Your task to perform on an android device: turn on location history Image 0: 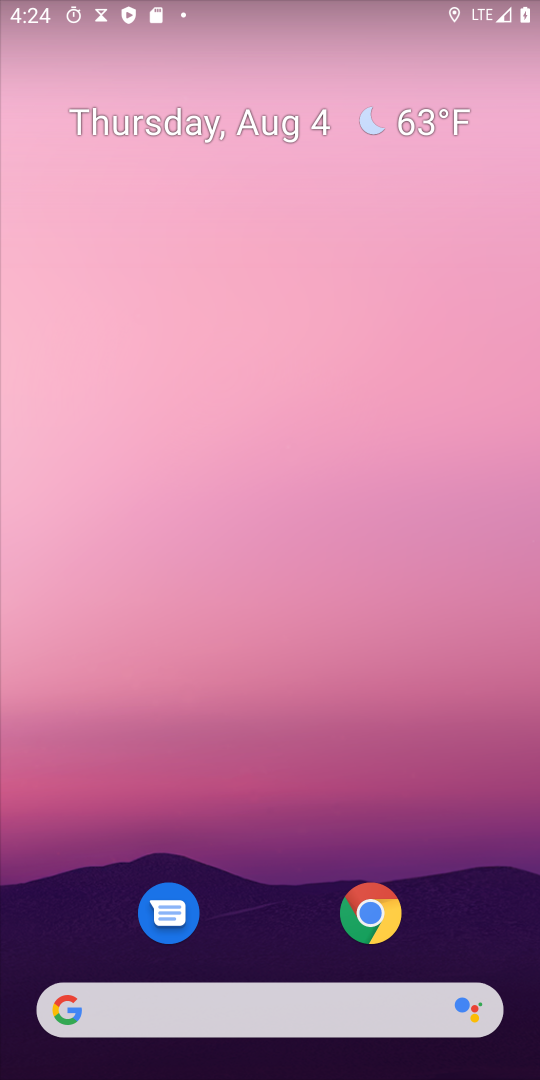
Step 0: drag from (379, 1032) to (539, 959)
Your task to perform on an android device: turn on location history Image 1: 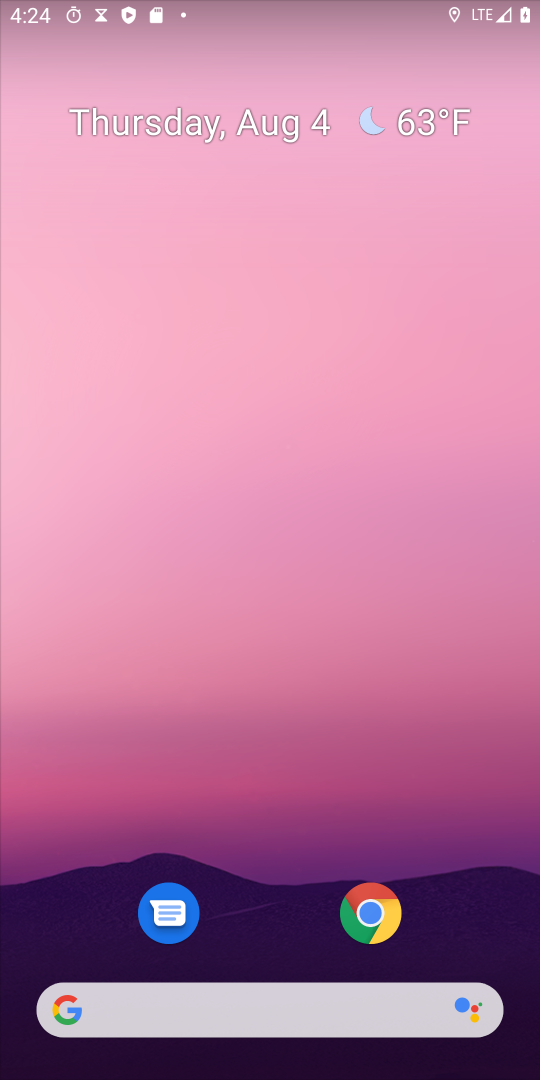
Step 1: drag from (228, 877) to (436, 72)
Your task to perform on an android device: turn on location history Image 2: 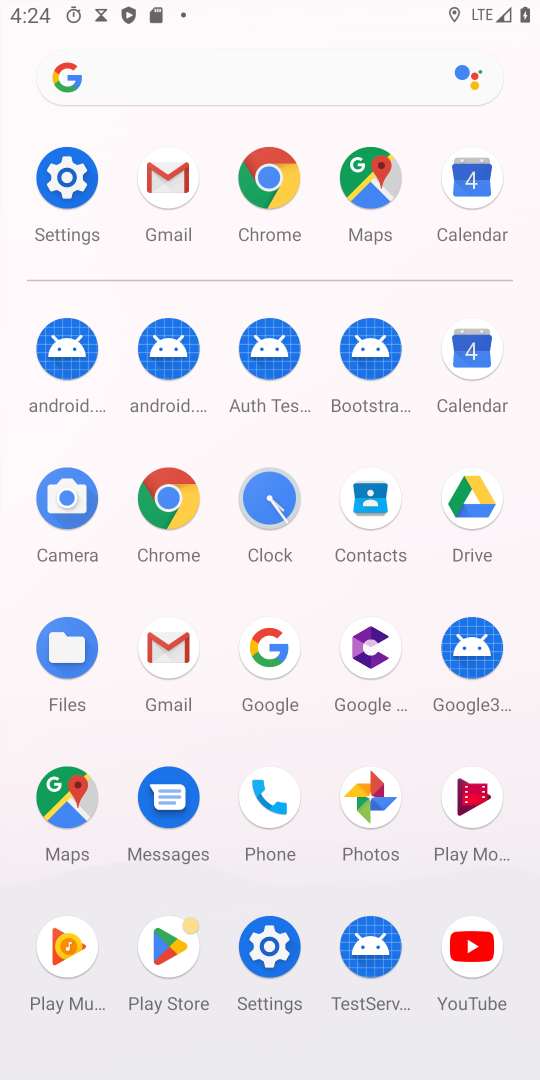
Step 2: click (65, 180)
Your task to perform on an android device: turn on location history Image 3: 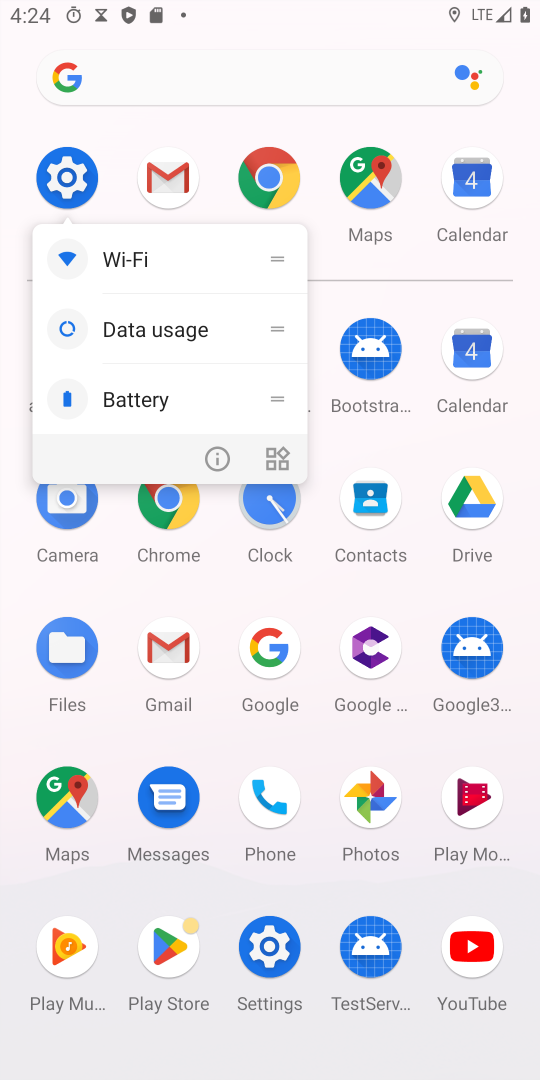
Step 3: click (70, 158)
Your task to perform on an android device: turn on location history Image 4: 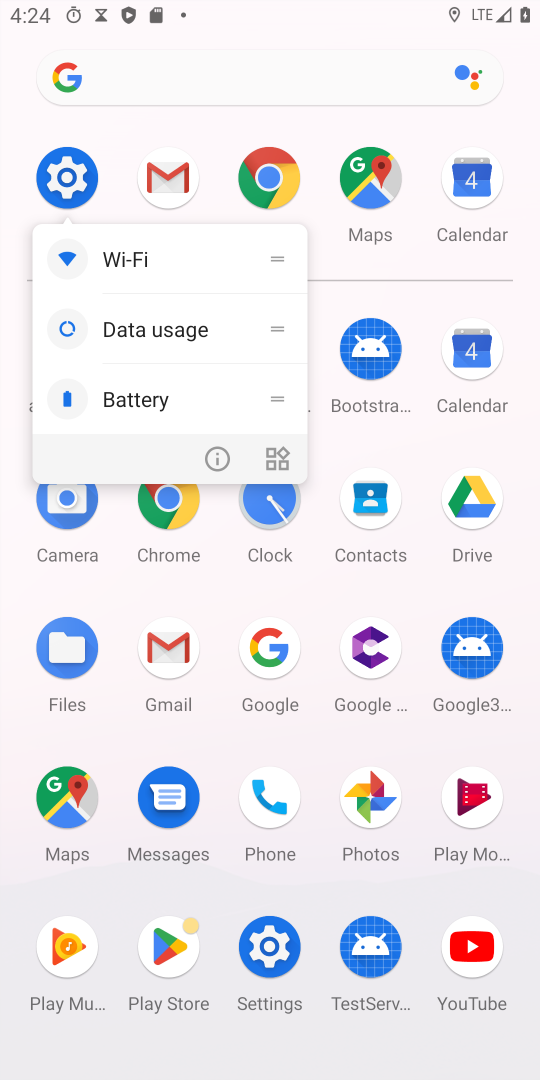
Step 4: click (70, 158)
Your task to perform on an android device: turn on location history Image 5: 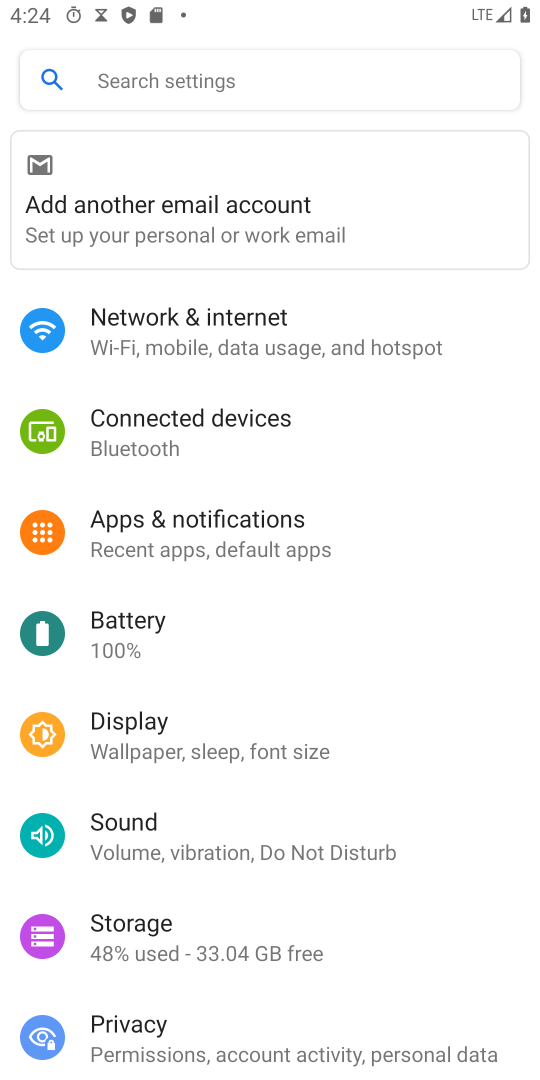
Step 5: drag from (127, 903) to (234, 182)
Your task to perform on an android device: turn on location history Image 6: 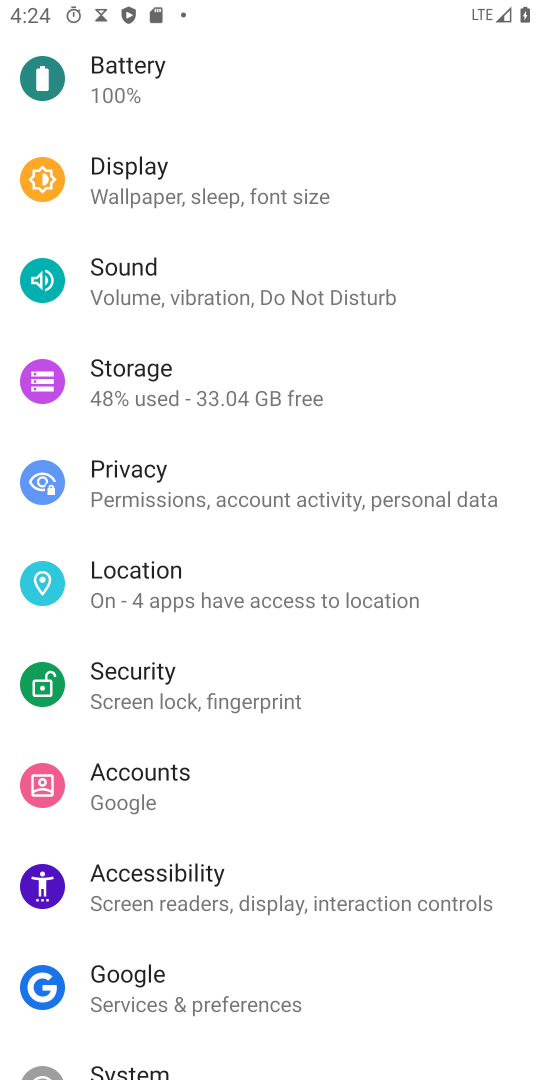
Step 6: click (159, 581)
Your task to perform on an android device: turn on location history Image 7: 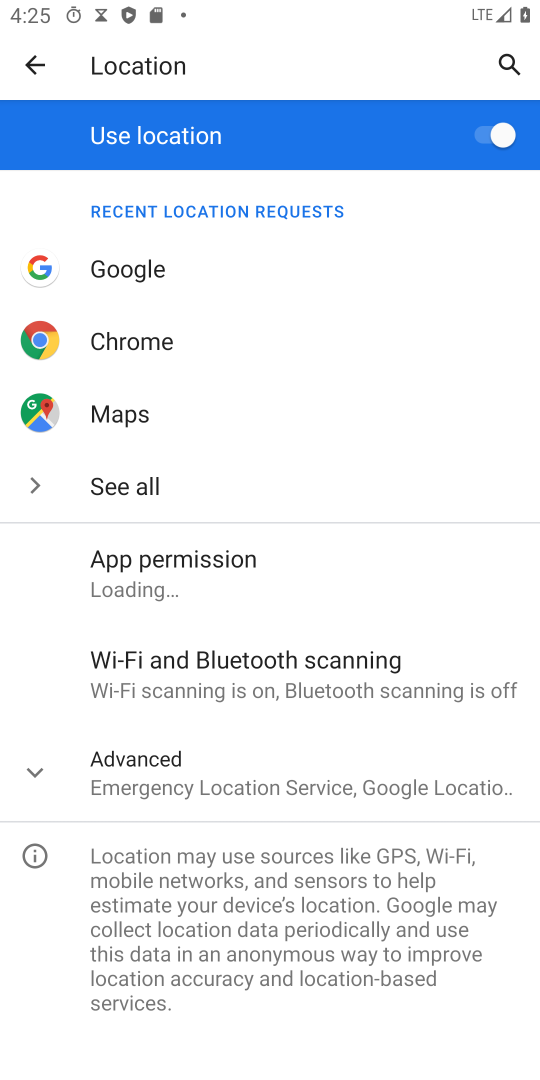
Step 7: click (183, 761)
Your task to perform on an android device: turn on location history Image 8: 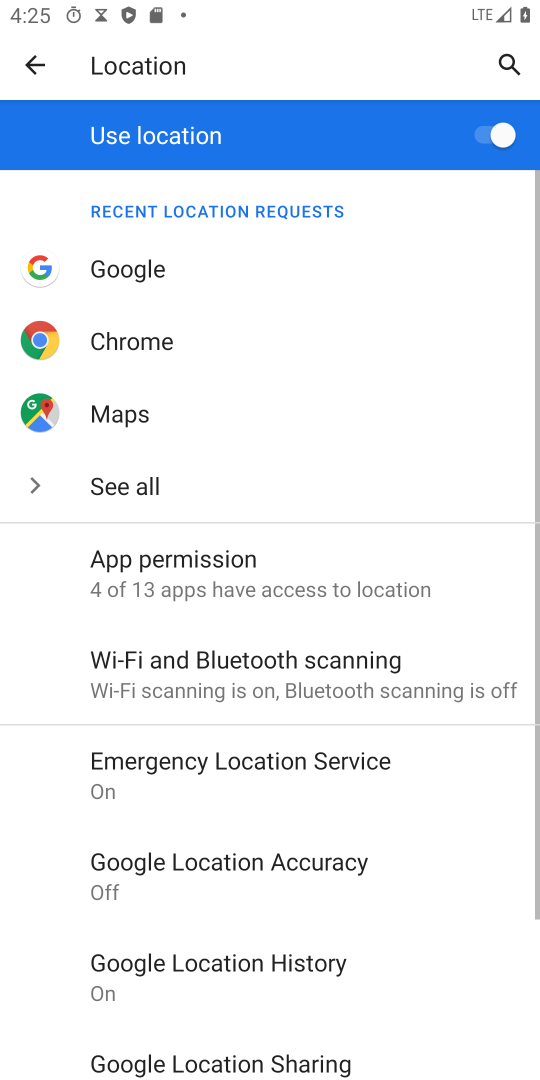
Step 8: click (322, 966)
Your task to perform on an android device: turn on location history Image 9: 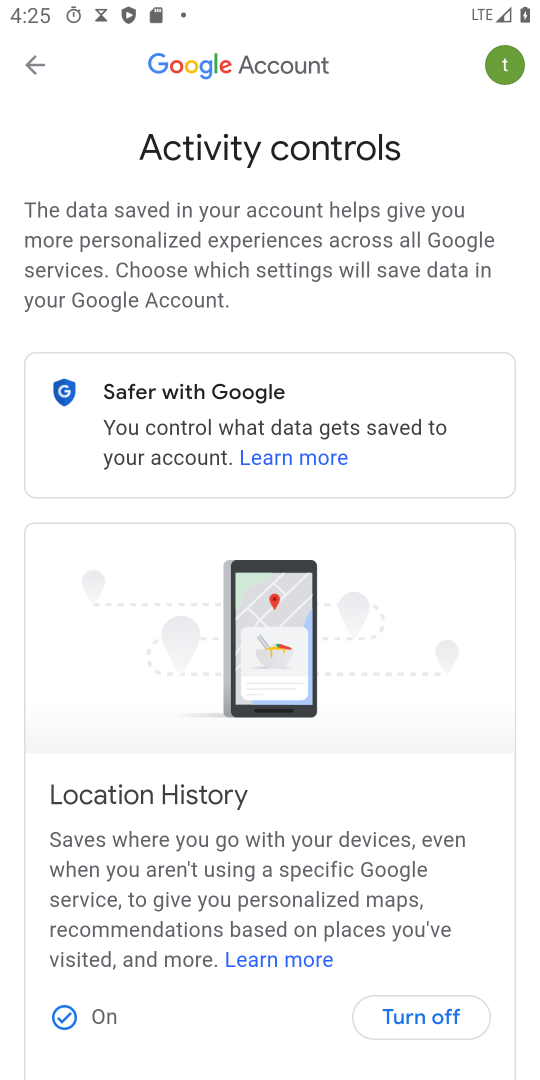
Step 9: task complete